Your task to perform on an android device: turn on data saver in the chrome app Image 0: 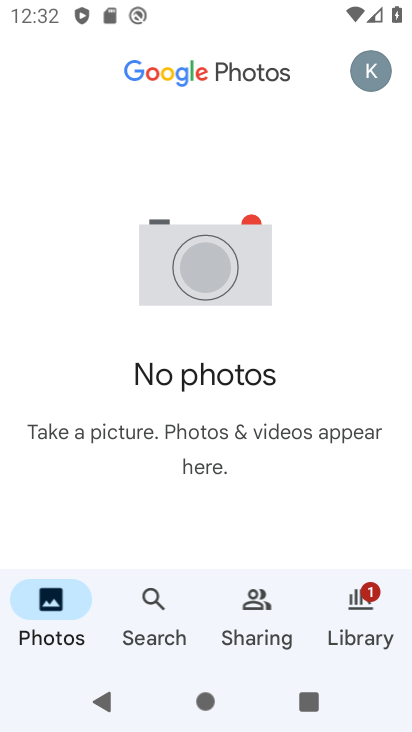
Step 0: press home button
Your task to perform on an android device: turn on data saver in the chrome app Image 1: 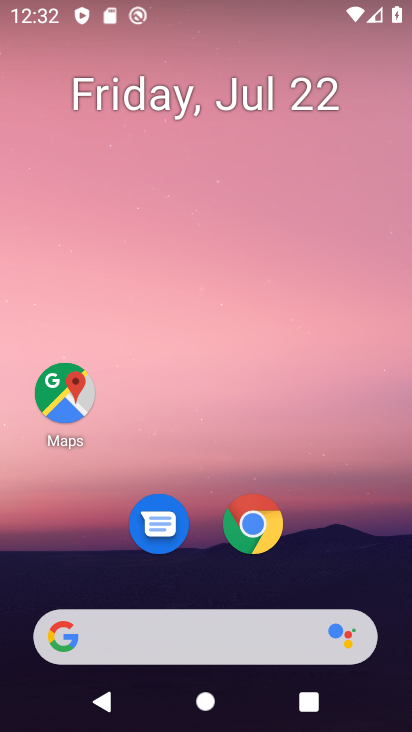
Step 1: click (263, 533)
Your task to perform on an android device: turn on data saver in the chrome app Image 2: 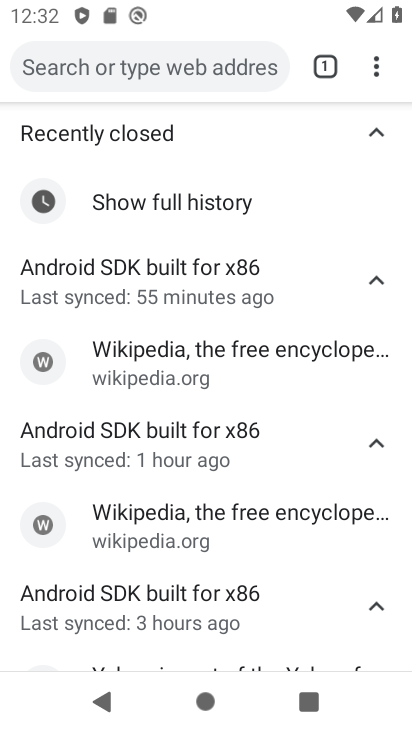
Step 2: drag from (369, 64) to (197, 552)
Your task to perform on an android device: turn on data saver in the chrome app Image 3: 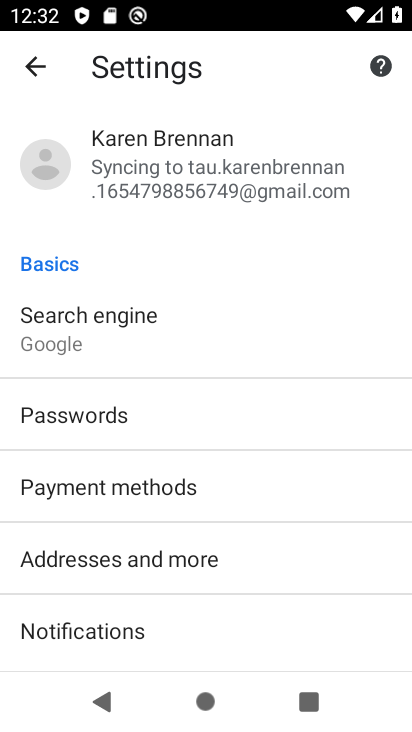
Step 3: drag from (175, 574) to (302, 89)
Your task to perform on an android device: turn on data saver in the chrome app Image 4: 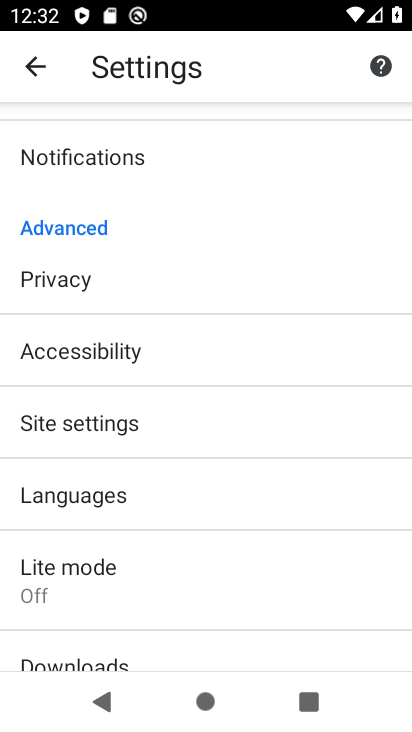
Step 4: click (79, 574)
Your task to perform on an android device: turn on data saver in the chrome app Image 5: 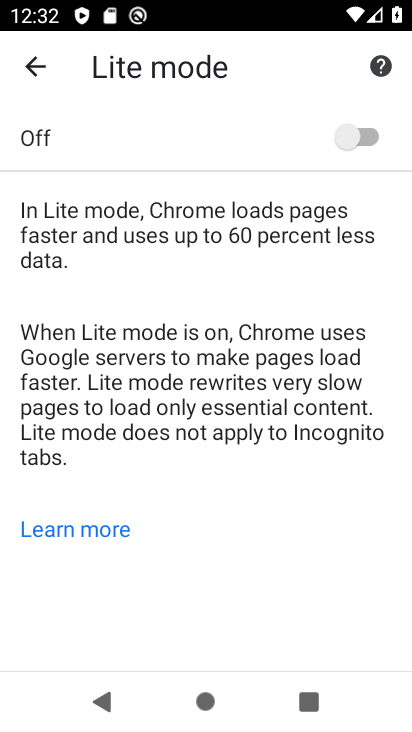
Step 5: click (362, 134)
Your task to perform on an android device: turn on data saver in the chrome app Image 6: 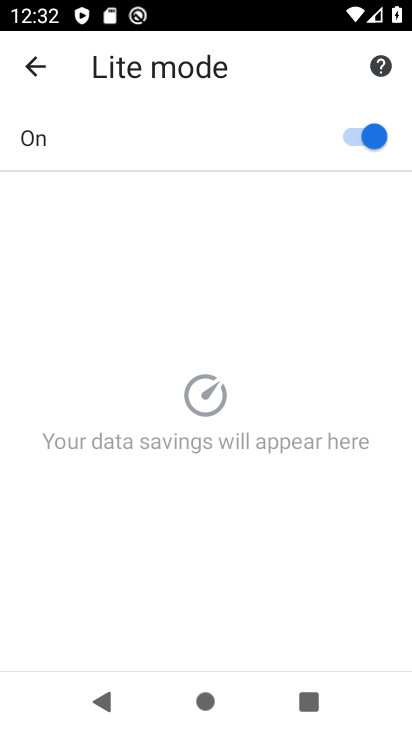
Step 6: task complete